Your task to perform on an android device: turn off notifications settings in the gmail app Image 0: 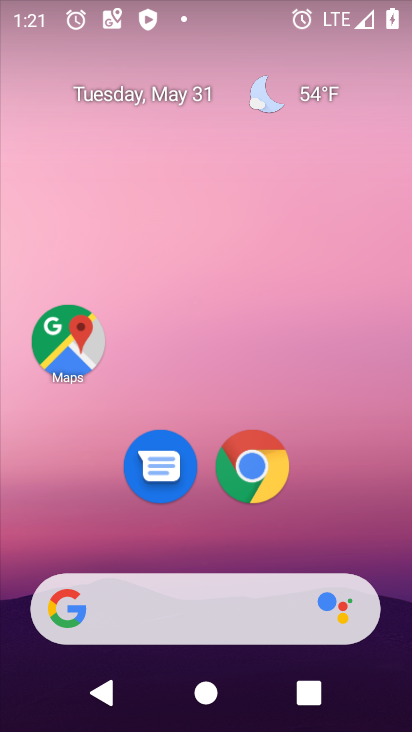
Step 0: drag from (226, 594) to (194, 81)
Your task to perform on an android device: turn off notifications settings in the gmail app Image 1: 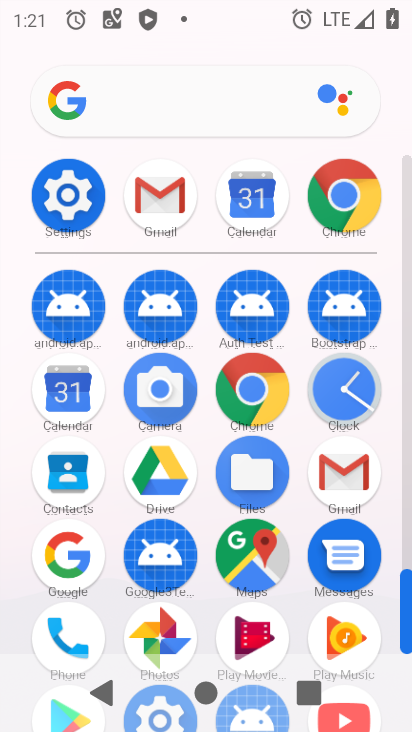
Step 1: click (156, 207)
Your task to perform on an android device: turn off notifications settings in the gmail app Image 2: 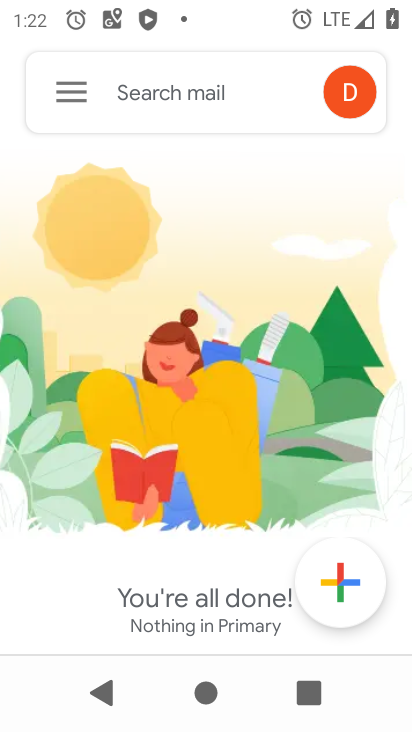
Step 2: click (68, 103)
Your task to perform on an android device: turn off notifications settings in the gmail app Image 3: 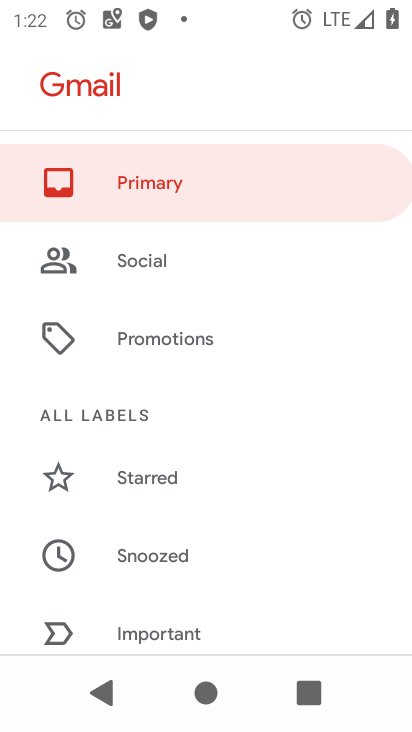
Step 3: drag from (137, 596) to (20, 327)
Your task to perform on an android device: turn off notifications settings in the gmail app Image 4: 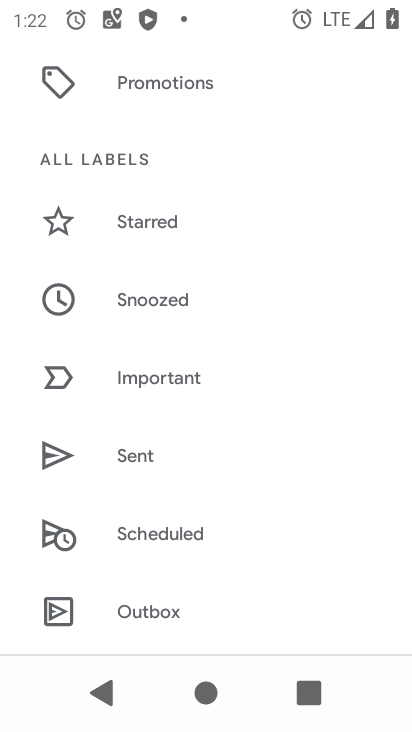
Step 4: drag from (181, 546) to (132, 54)
Your task to perform on an android device: turn off notifications settings in the gmail app Image 5: 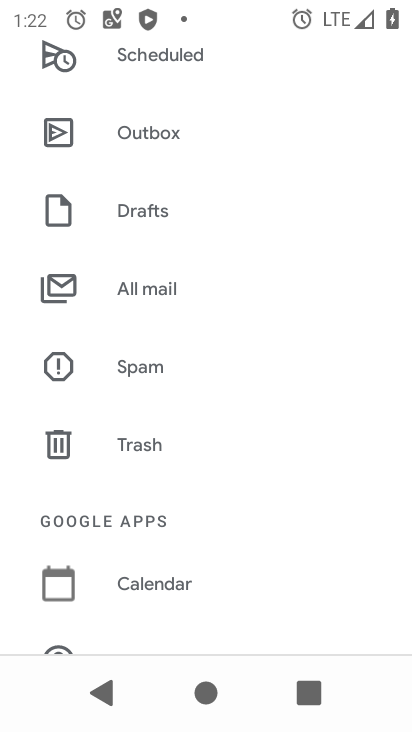
Step 5: drag from (167, 505) to (22, 393)
Your task to perform on an android device: turn off notifications settings in the gmail app Image 6: 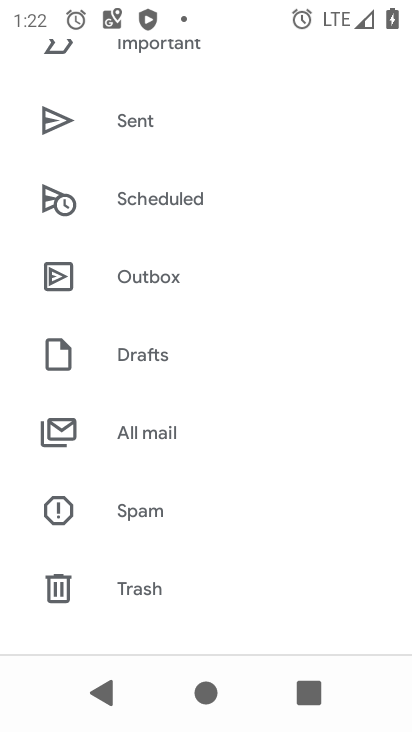
Step 6: drag from (159, 518) to (4, 236)
Your task to perform on an android device: turn off notifications settings in the gmail app Image 7: 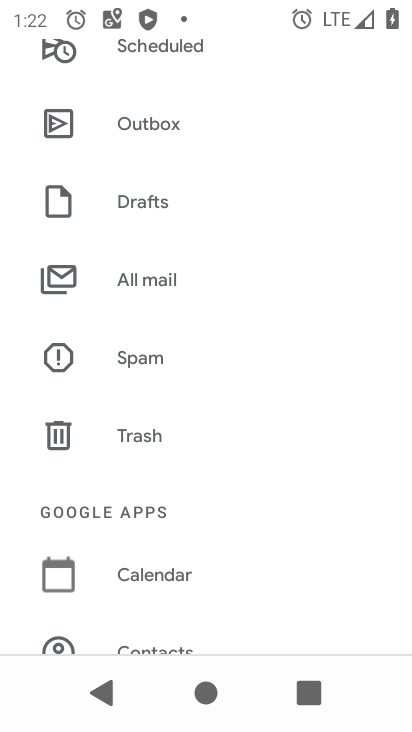
Step 7: drag from (160, 558) to (18, 14)
Your task to perform on an android device: turn off notifications settings in the gmail app Image 8: 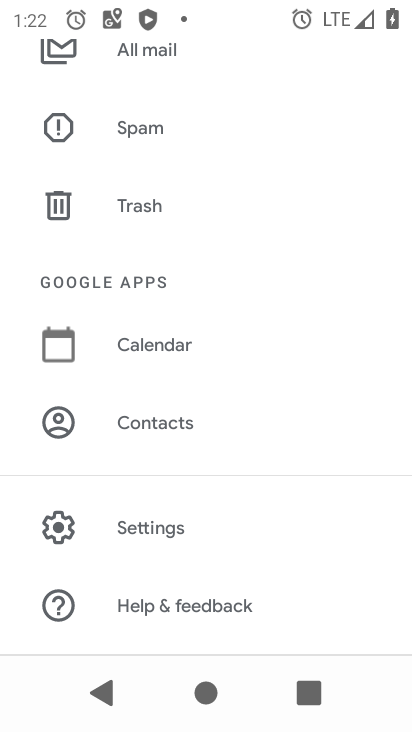
Step 8: click (156, 536)
Your task to perform on an android device: turn off notifications settings in the gmail app Image 9: 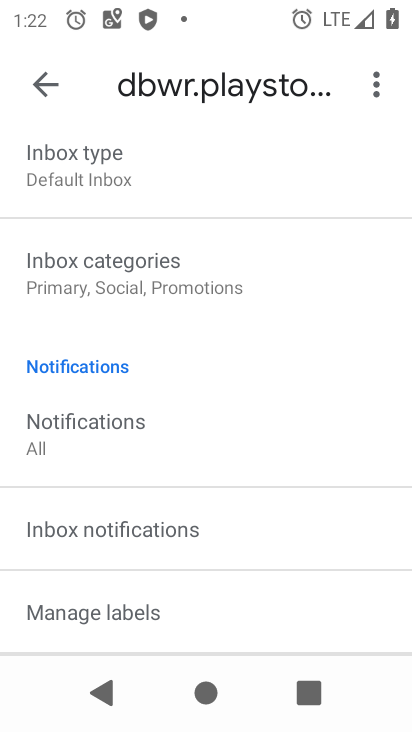
Step 9: drag from (105, 619) to (165, 0)
Your task to perform on an android device: turn off notifications settings in the gmail app Image 10: 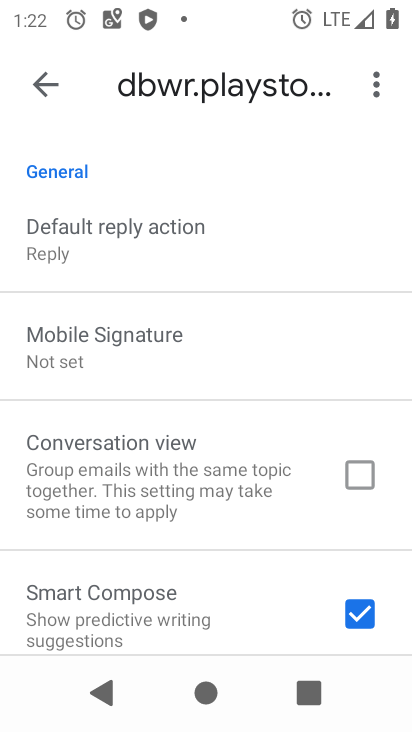
Step 10: drag from (138, 292) to (72, 719)
Your task to perform on an android device: turn off notifications settings in the gmail app Image 11: 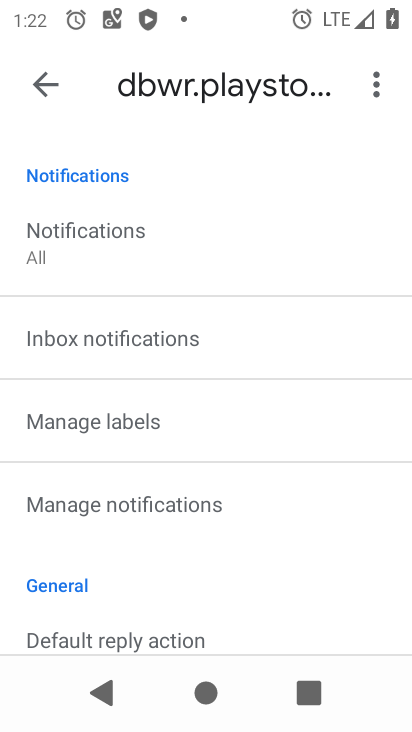
Step 11: click (118, 501)
Your task to perform on an android device: turn off notifications settings in the gmail app Image 12: 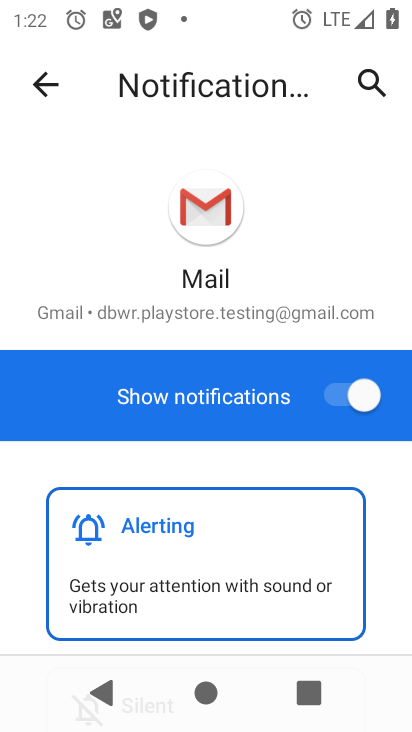
Step 12: click (348, 389)
Your task to perform on an android device: turn off notifications settings in the gmail app Image 13: 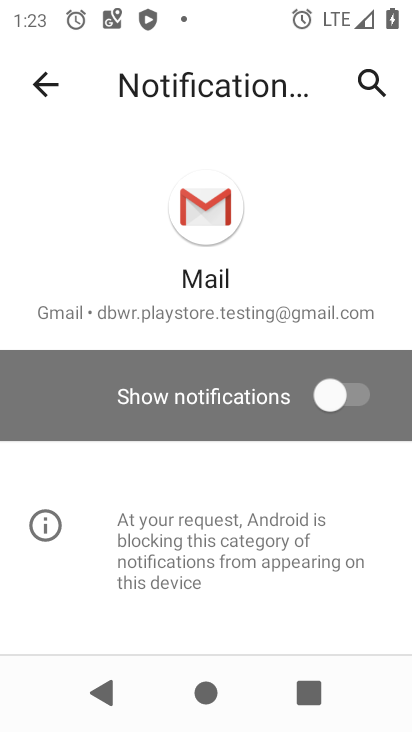
Step 13: task complete